Your task to perform on an android device: Open Google Chrome Image 0: 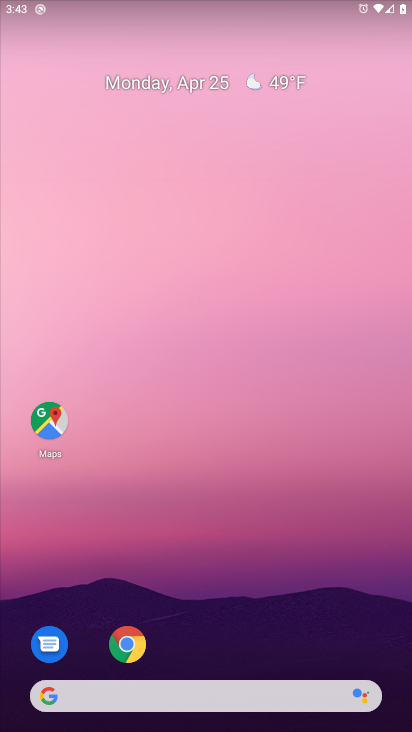
Step 0: press home button
Your task to perform on an android device: Open Google Chrome Image 1: 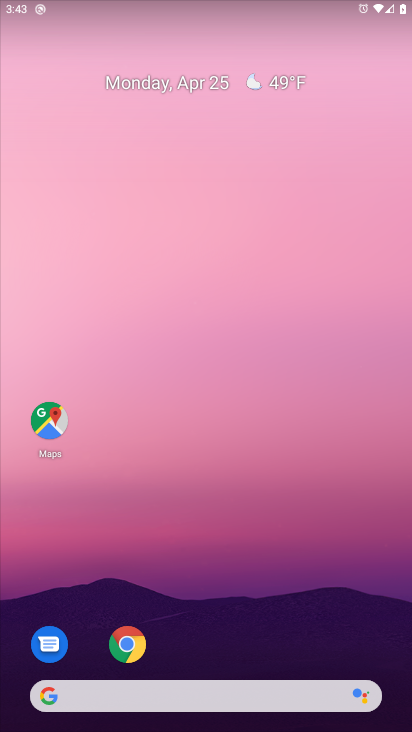
Step 1: click (142, 642)
Your task to perform on an android device: Open Google Chrome Image 2: 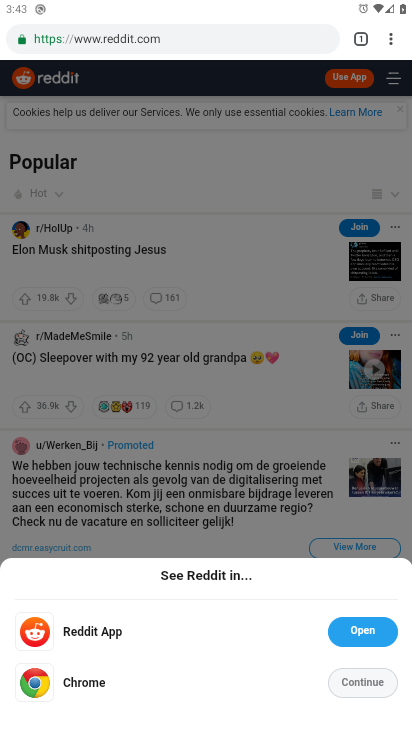
Step 2: task complete